Your task to perform on an android device: snooze an email in the gmail app Image 0: 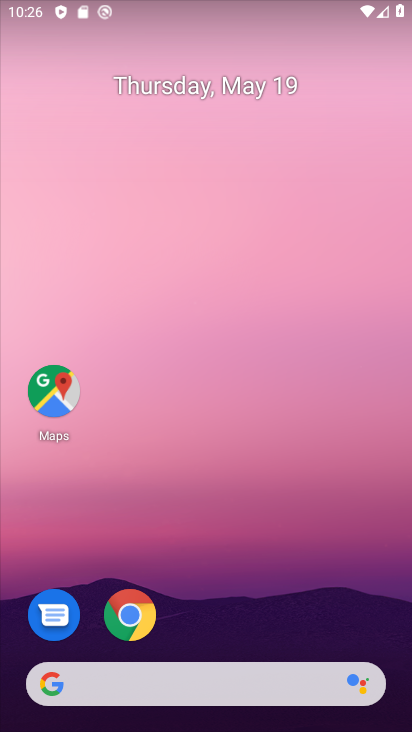
Step 0: drag from (310, 628) to (351, 35)
Your task to perform on an android device: snooze an email in the gmail app Image 1: 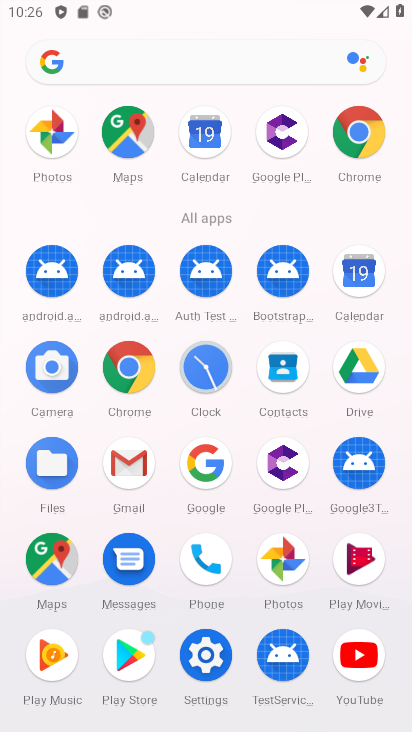
Step 1: click (120, 468)
Your task to perform on an android device: snooze an email in the gmail app Image 2: 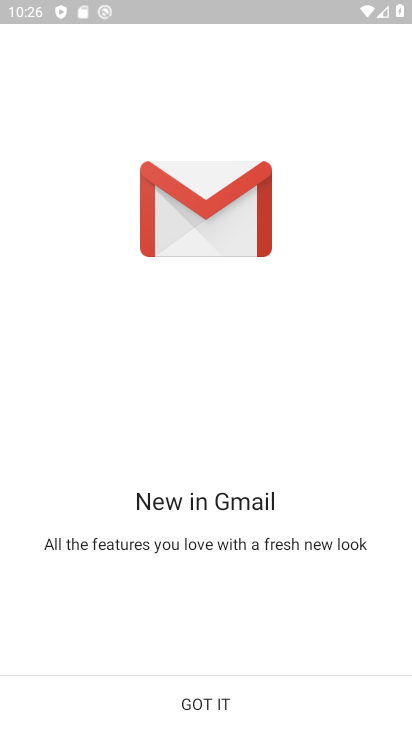
Step 2: click (203, 704)
Your task to perform on an android device: snooze an email in the gmail app Image 3: 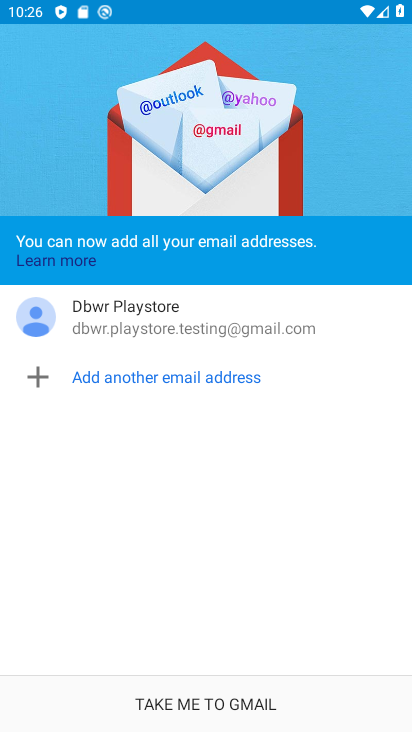
Step 3: click (203, 704)
Your task to perform on an android device: snooze an email in the gmail app Image 4: 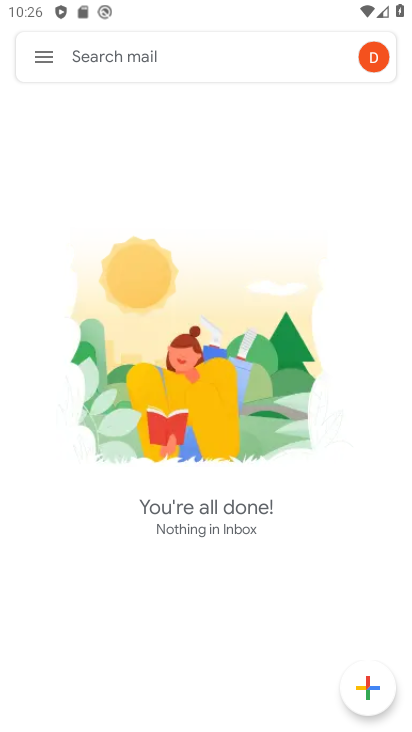
Step 4: click (26, 56)
Your task to perform on an android device: snooze an email in the gmail app Image 5: 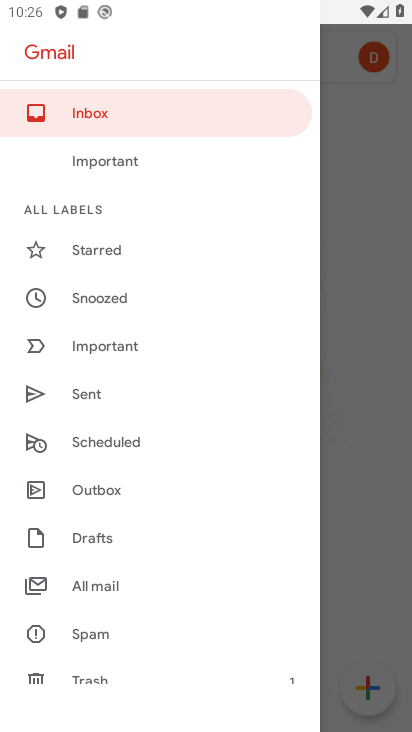
Step 5: click (101, 583)
Your task to perform on an android device: snooze an email in the gmail app Image 6: 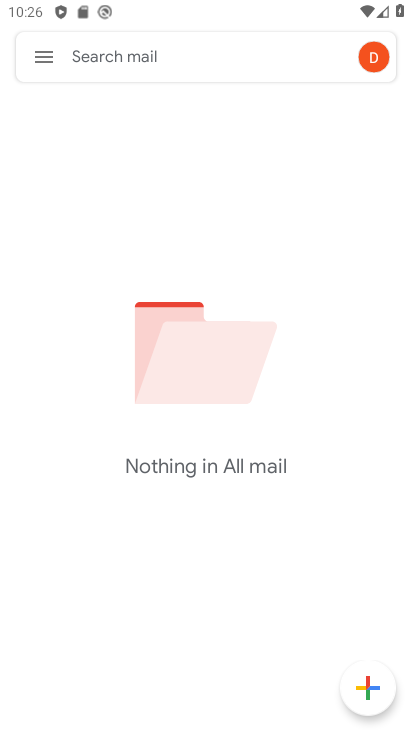
Step 6: task complete